Your task to perform on an android device: open app "Duolingo: language lessons" Image 0: 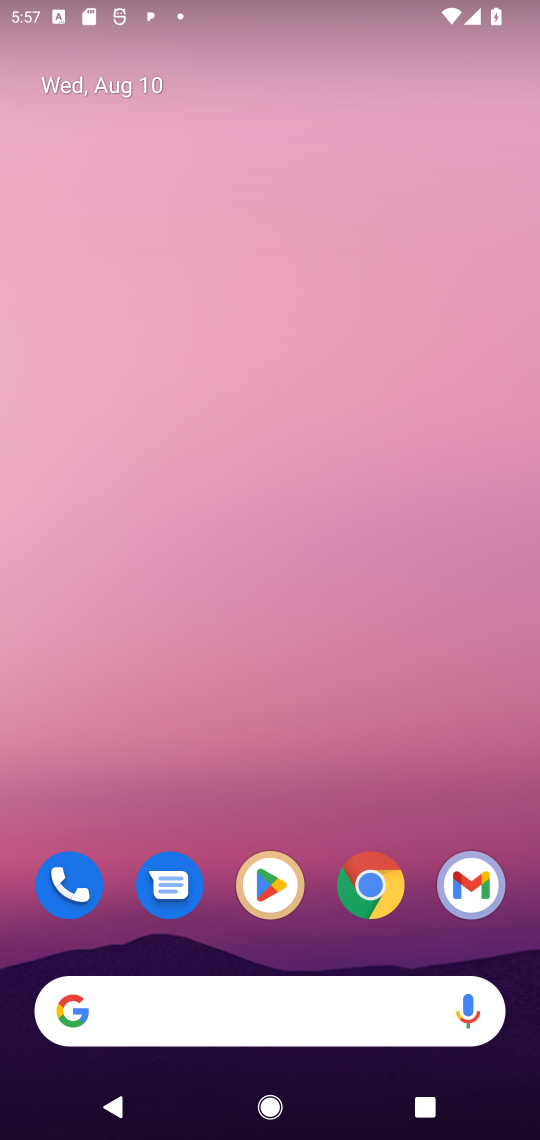
Step 0: click (280, 864)
Your task to perform on an android device: open app "Duolingo: language lessons" Image 1: 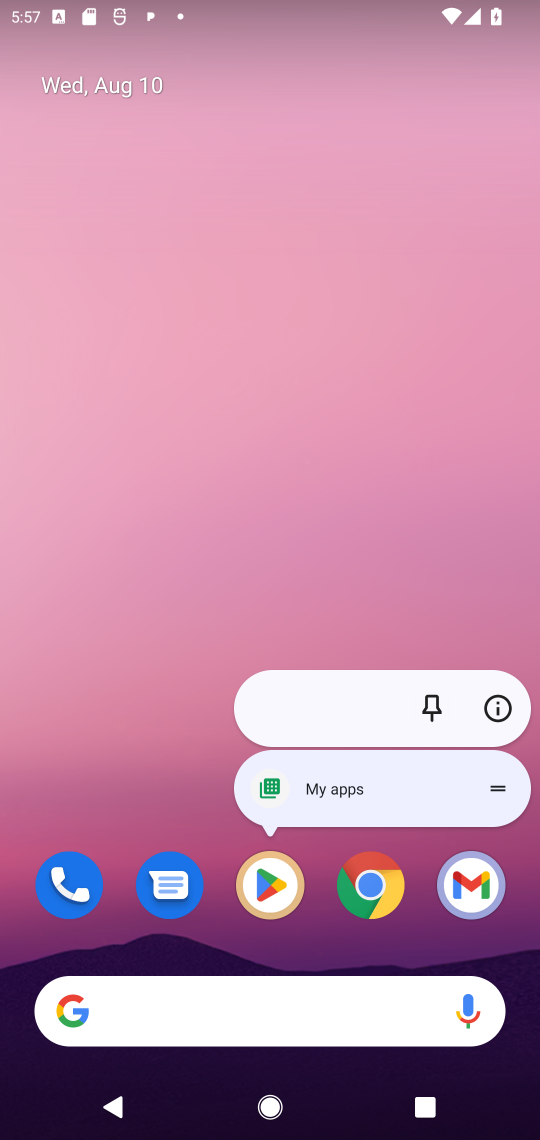
Step 1: click (274, 878)
Your task to perform on an android device: open app "Duolingo: language lessons" Image 2: 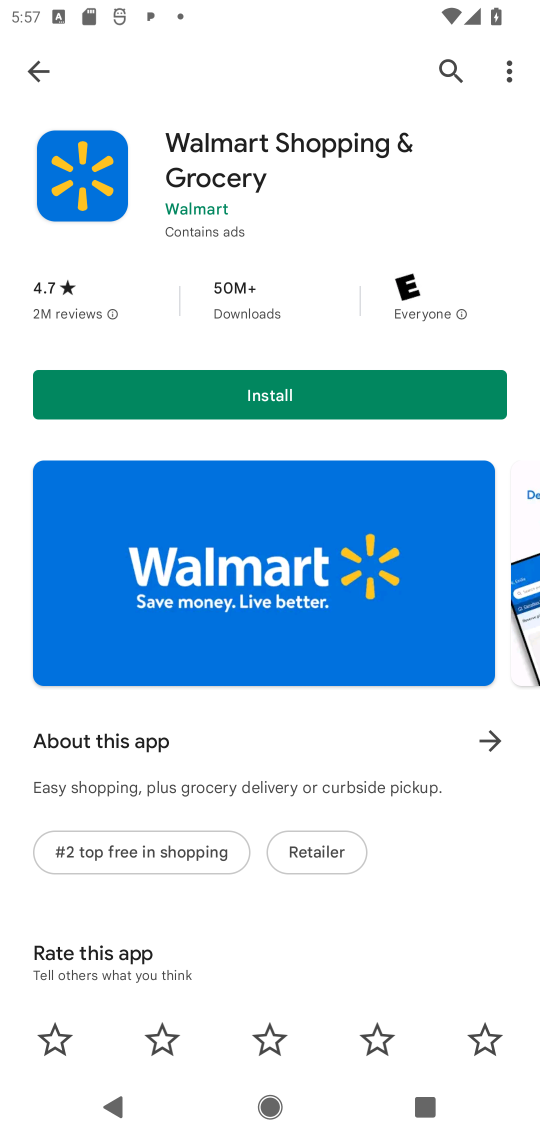
Step 2: click (449, 63)
Your task to perform on an android device: open app "Duolingo: language lessons" Image 3: 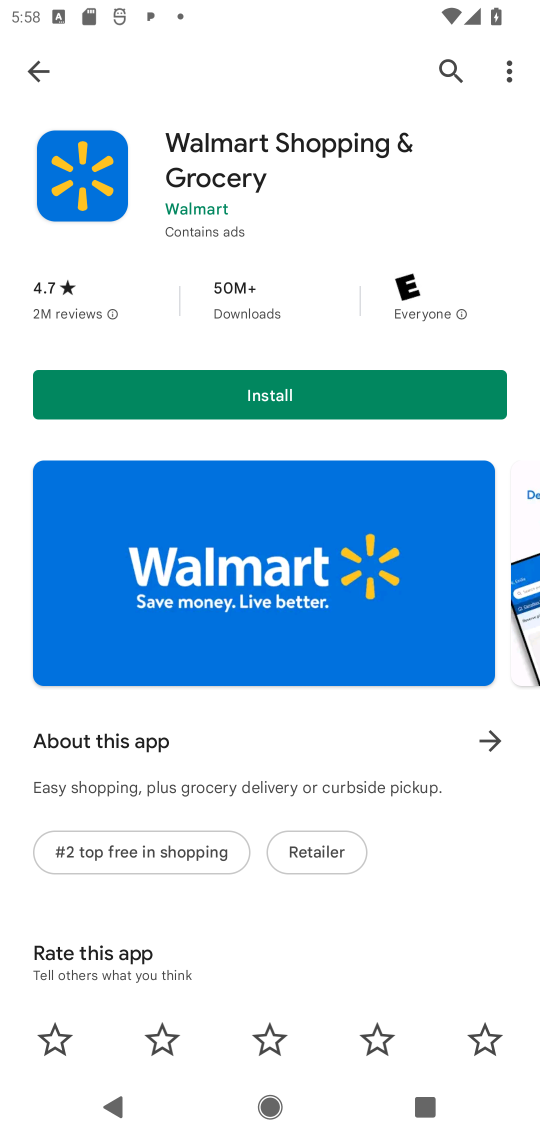
Step 3: click (440, 69)
Your task to perform on an android device: open app "Duolingo: language lessons" Image 4: 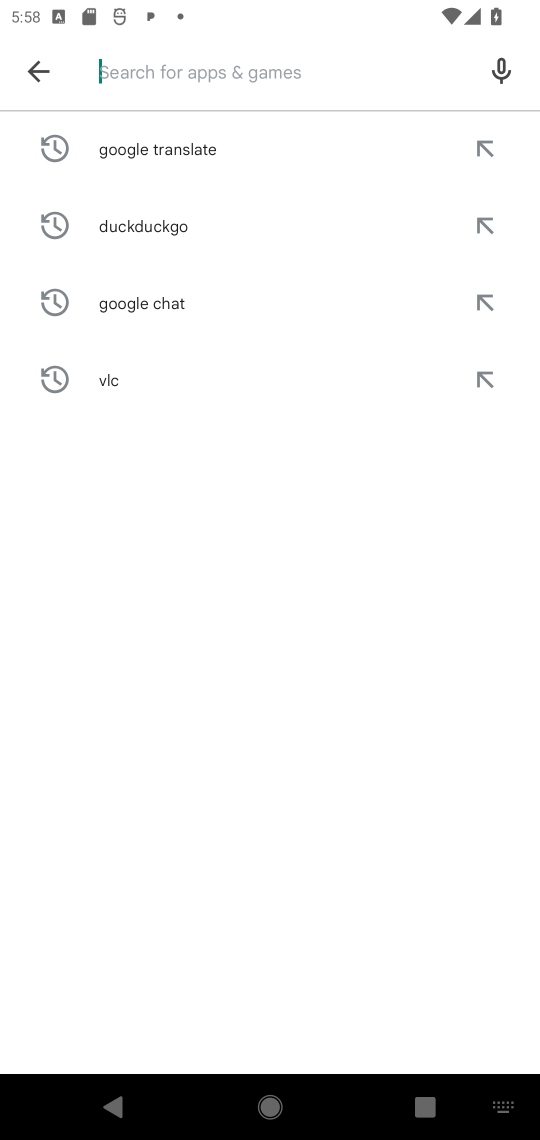
Step 4: click (186, 64)
Your task to perform on an android device: open app "Duolingo: language lessons" Image 5: 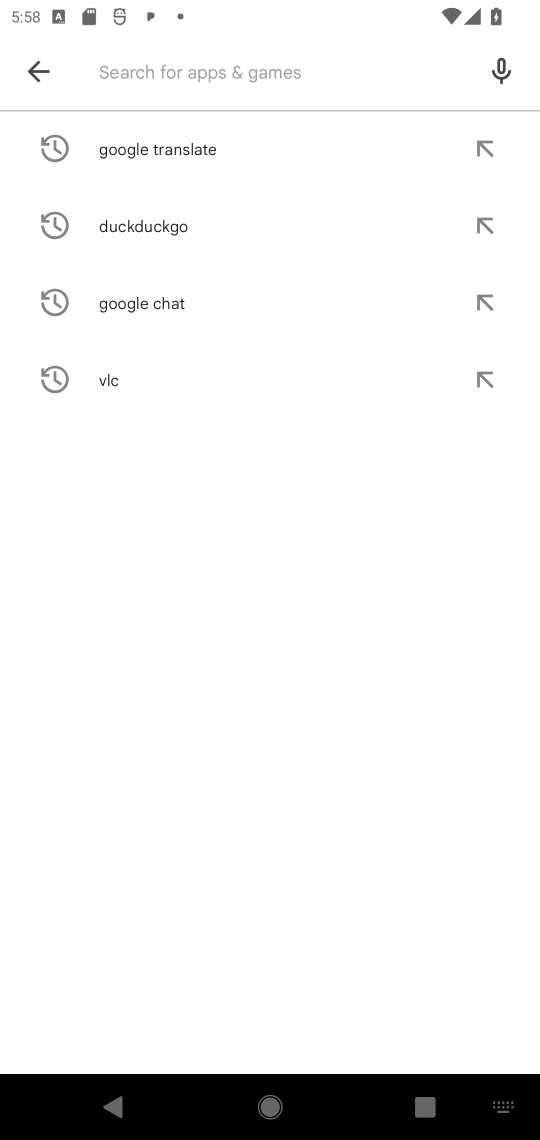
Step 5: type "Duolingo"
Your task to perform on an android device: open app "Duolingo: language lessons" Image 6: 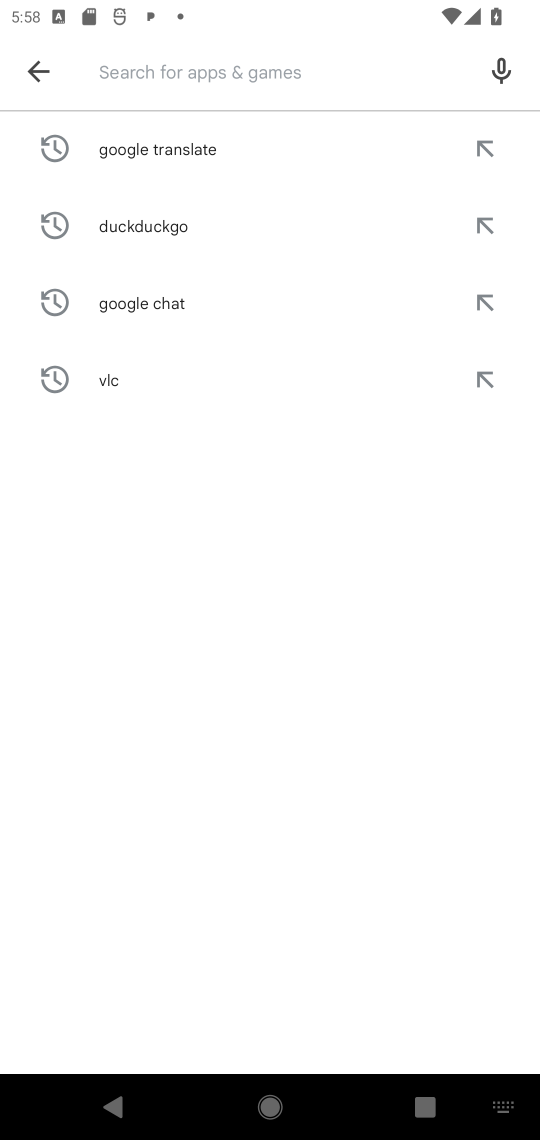
Step 6: click (349, 640)
Your task to perform on an android device: open app "Duolingo: language lessons" Image 7: 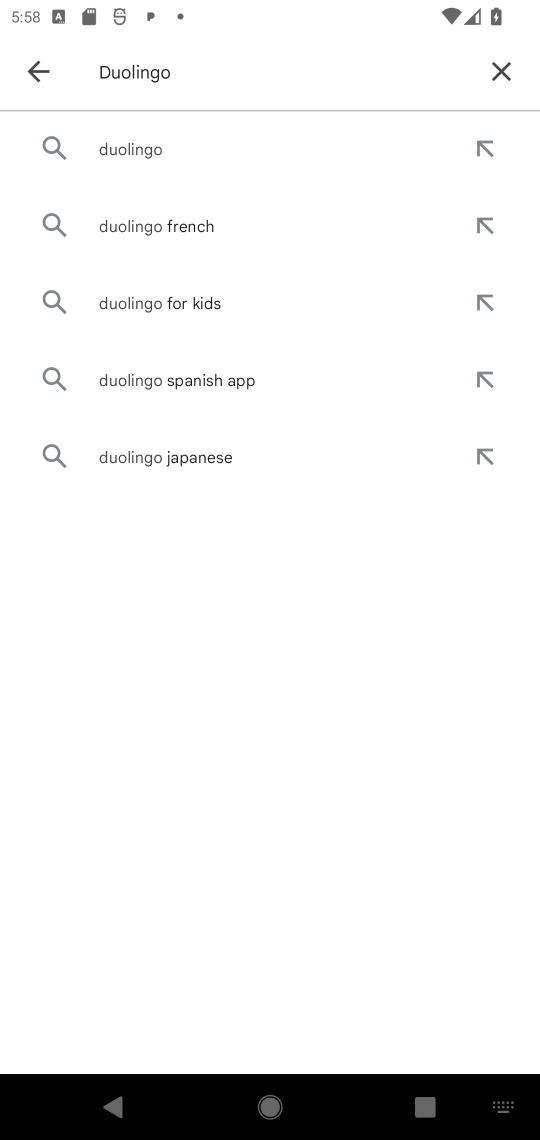
Step 7: click (164, 155)
Your task to perform on an android device: open app "Duolingo: language lessons" Image 8: 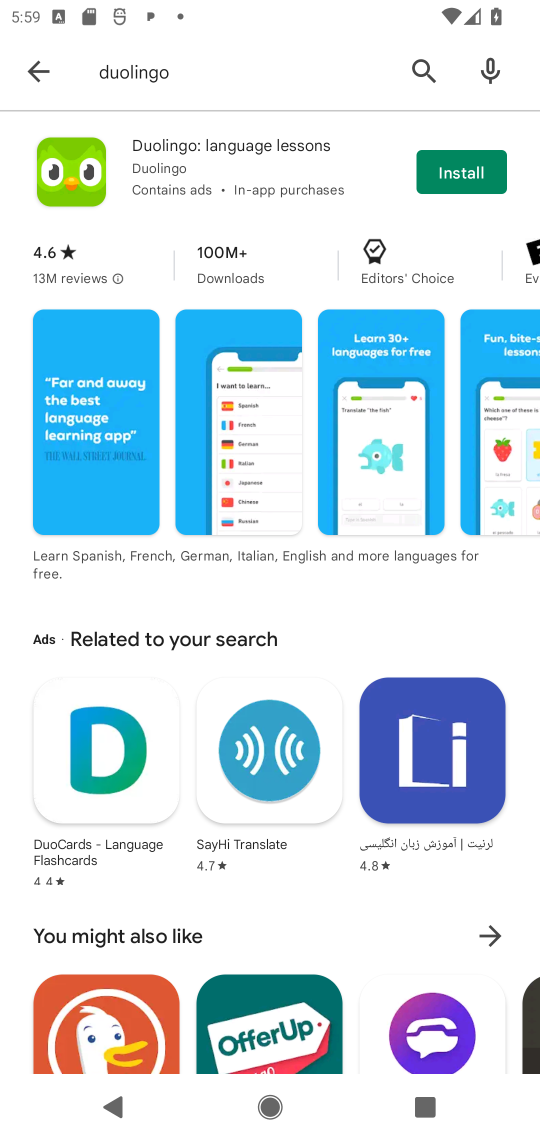
Step 8: task complete